Your task to perform on an android device: delete location history Image 0: 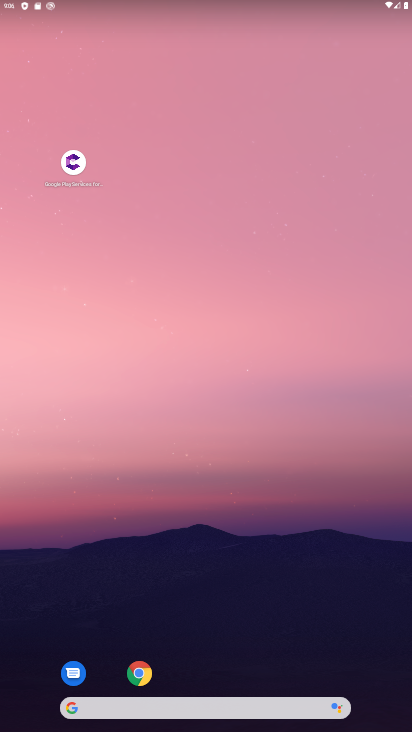
Step 0: click (204, 671)
Your task to perform on an android device: delete location history Image 1: 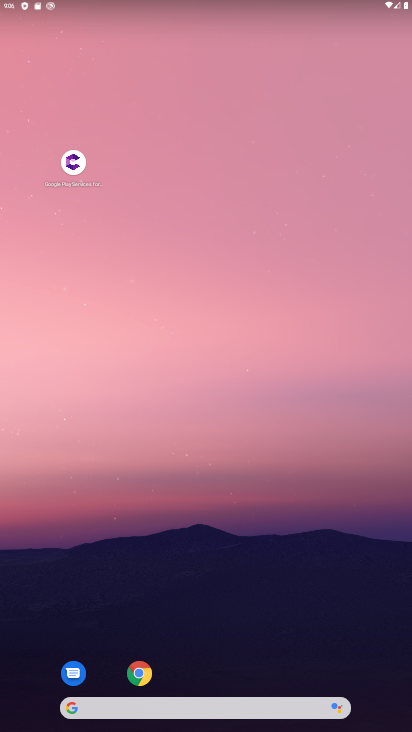
Step 1: drag from (205, 670) to (220, 181)
Your task to perform on an android device: delete location history Image 2: 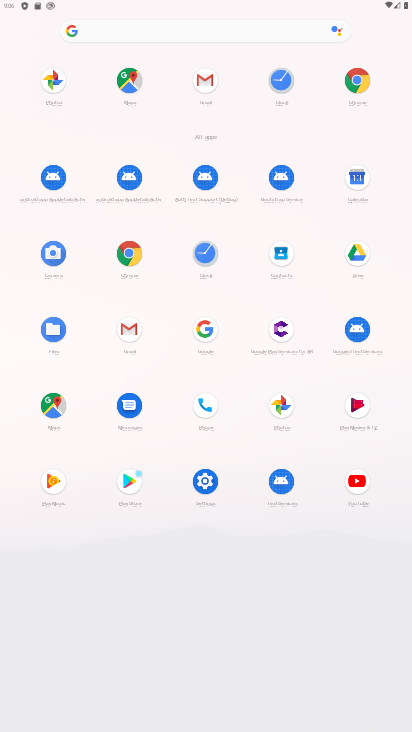
Step 2: click (138, 81)
Your task to perform on an android device: delete location history Image 3: 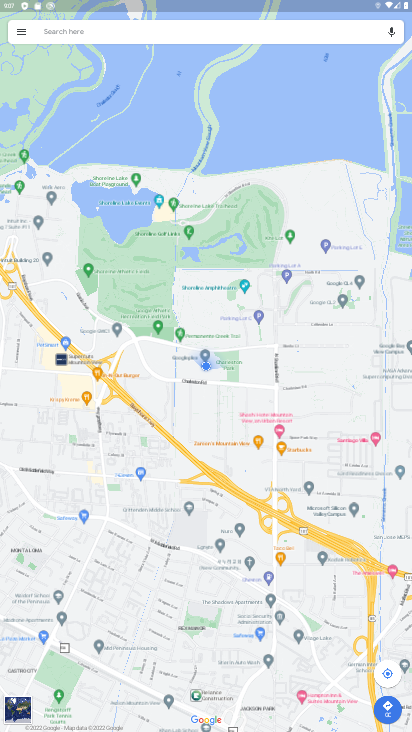
Step 3: click (15, 30)
Your task to perform on an android device: delete location history Image 4: 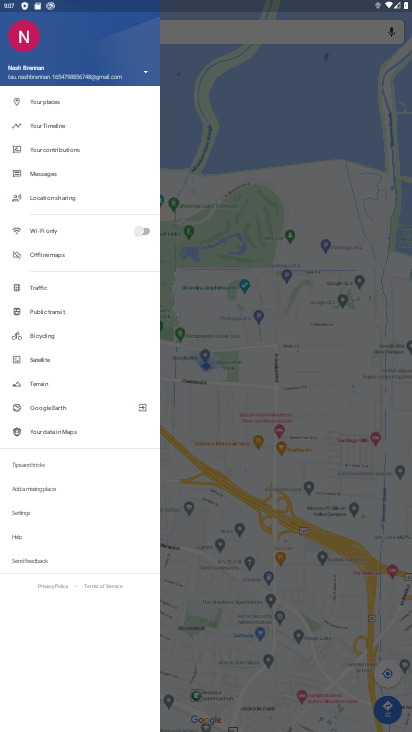
Step 4: click (69, 118)
Your task to perform on an android device: delete location history Image 5: 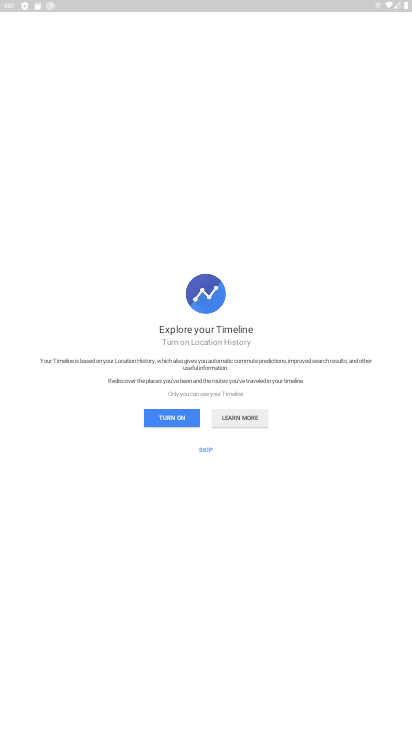
Step 5: click (189, 412)
Your task to perform on an android device: delete location history Image 6: 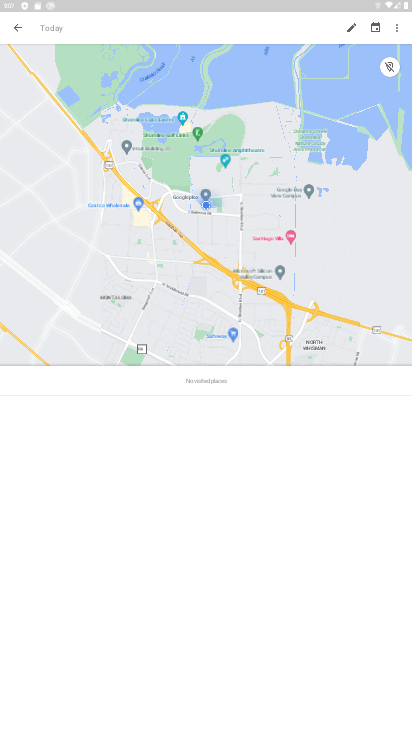
Step 6: click (391, 25)
Your task to perform on an android device: delete location history Image 7: 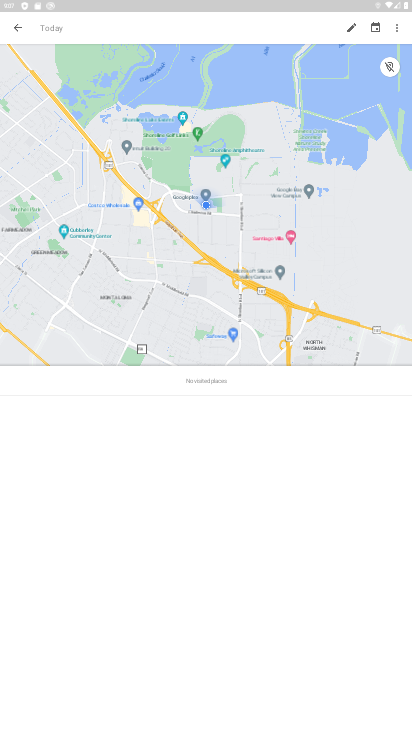
Step 7: click (389, 23)
Your task to perform on an android device: delete location history Image 8: 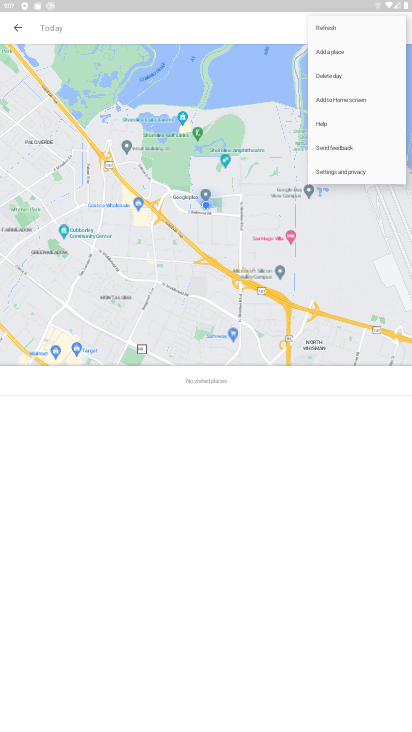
Step 8: click (340, 173)
Your task to perform on an android device: delete location history Image 9: 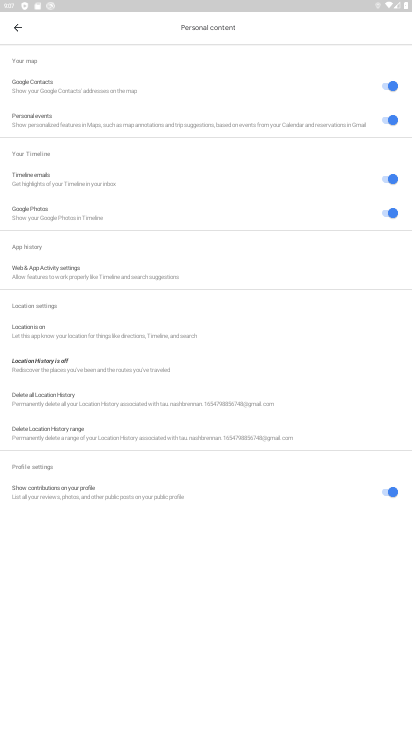
Step 9: click (71, 400)
Your task to perform on an android device: delete location history Image 10: 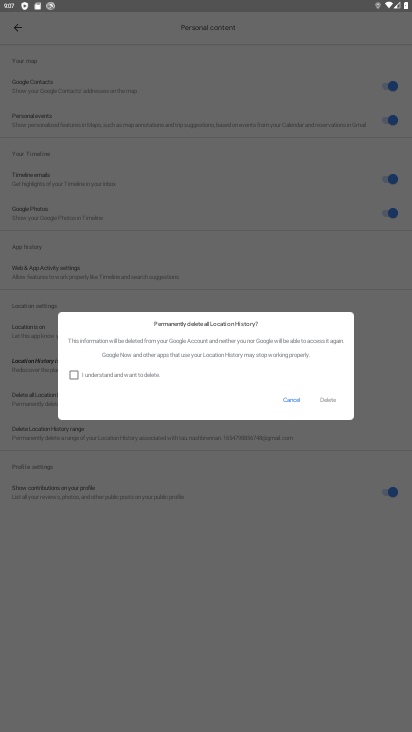
Step 10: click (108, 374)
Your task to perform on an android device: delete location history Image 11: 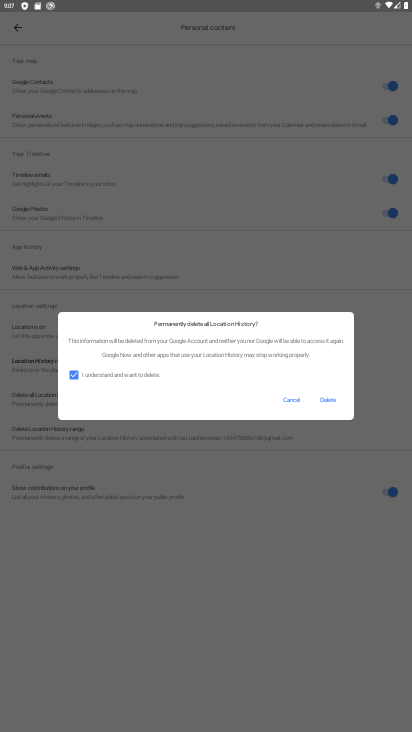
Step 11: click (325, 398)
Your task to perform on an android device: delete location history Image 12: 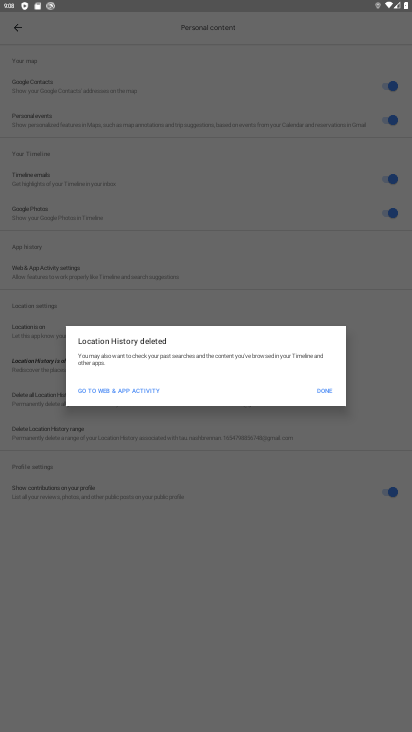
Step 12: task complete